Your task to perform on an android device: turn on priority inbox in the gmail app Image 0: 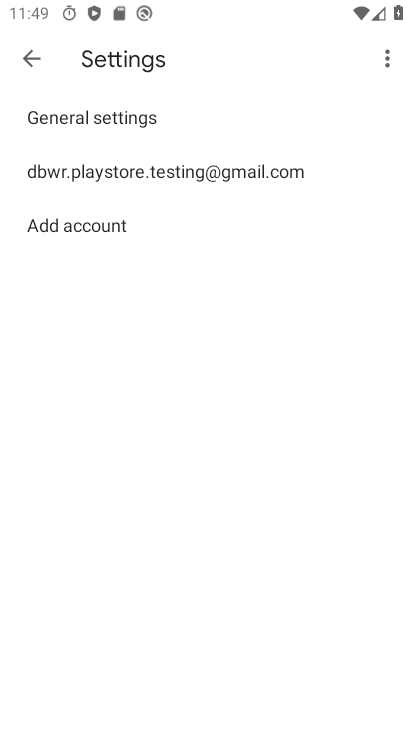
Step 0: press home button
Your task to perform on an android device: turn on priority inbox in the gmail app Image 1: 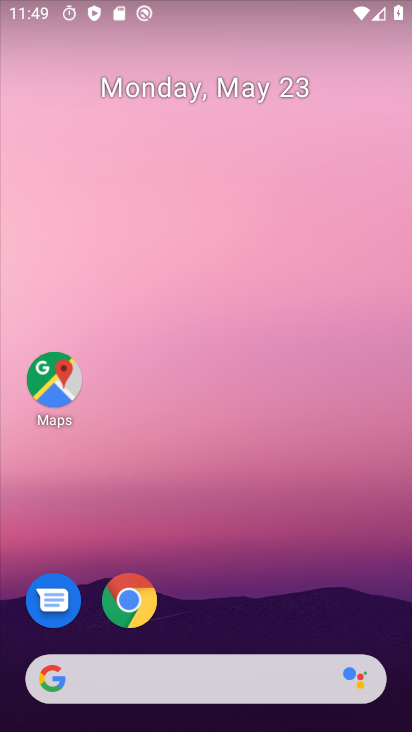
Step 1: drag from (239, 611) to (219, 158)
Your task to perform on an android device: turn on priority inbox in the gmail app Image 2: 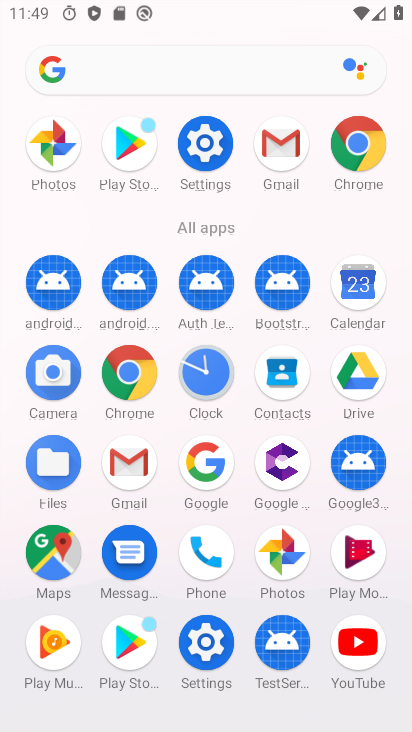
Step 2: click (285, 149)
Your task to perform on an android device: turn on priority inbox in the gmail app Image 3: 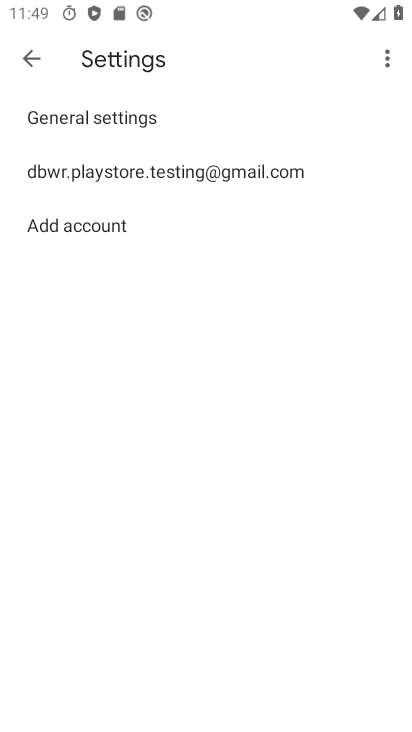
Step 3: click (102, 167)
Your task to perform on an android device: turn on priority inbox in the gmail app Image 4: 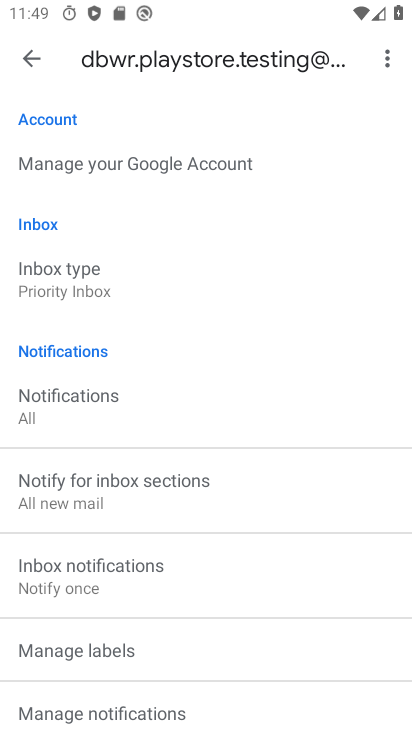
Step 4: click (85, 295)
Your task to perform on an android device: turn on priority inbox in the gmail app Image 5: 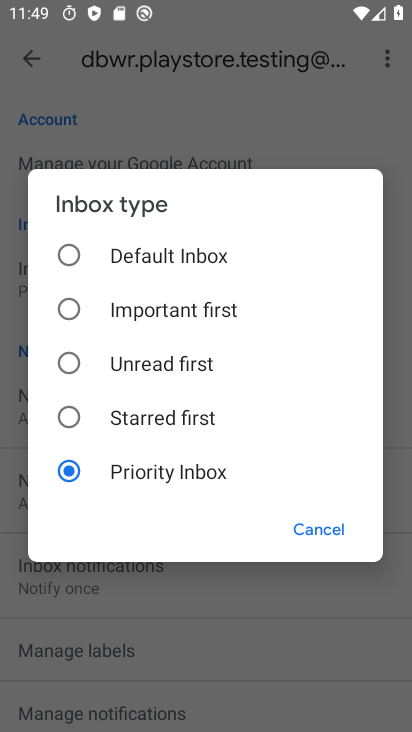
Step 5: task complete